Your task to perform on an android device: delete browsing data in the chrome app Image 0: 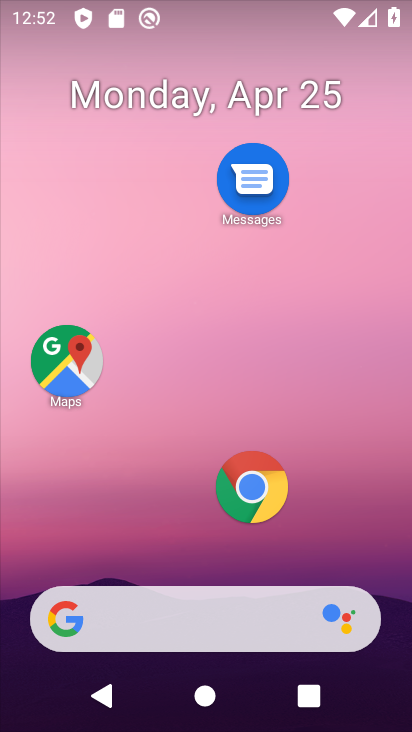
Step 0: drag from (320, 617) to (295, 23)
Your task to perform on an android device: delete browsing data in the chrome app Image 1: 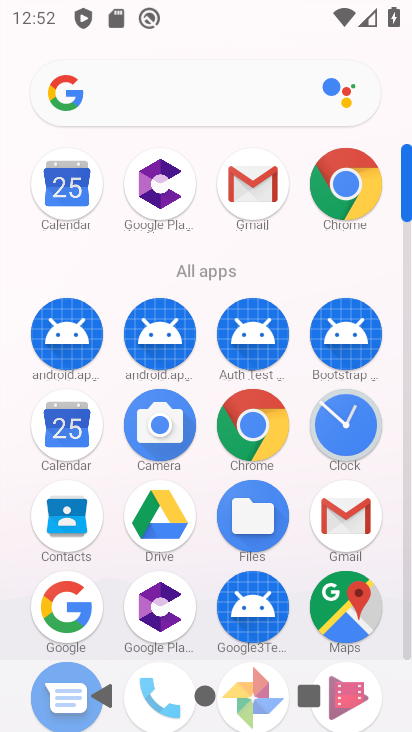
Step 1: click (245, 414)
Your task to perform on an android device: delete browsing data in the chrome app Image 2: 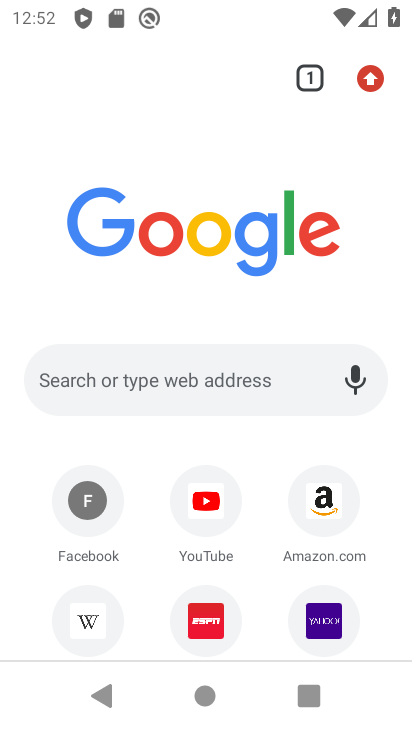
Step 2: task complete